Your task to perform on an android device: delete browsing data in the chrome app Image 0: 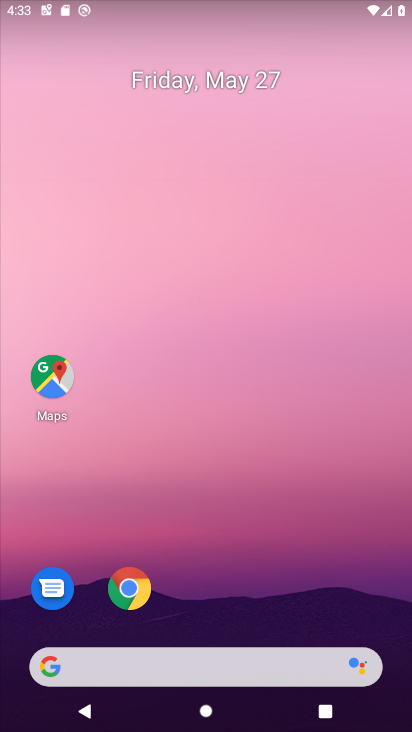
Step 0: click (121, 585)
Your task to perform on an android device: delete browsing data in the chrome app Image 1: 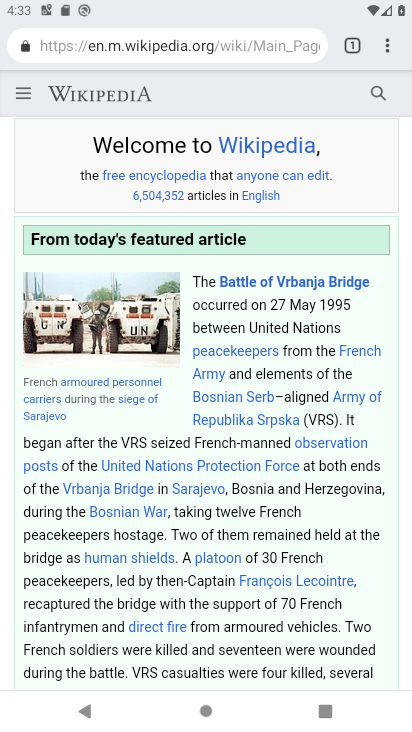
Step 1: click (385, 47)
Your task to perform on an android device: delete browsing data in the chrome app Image 2: 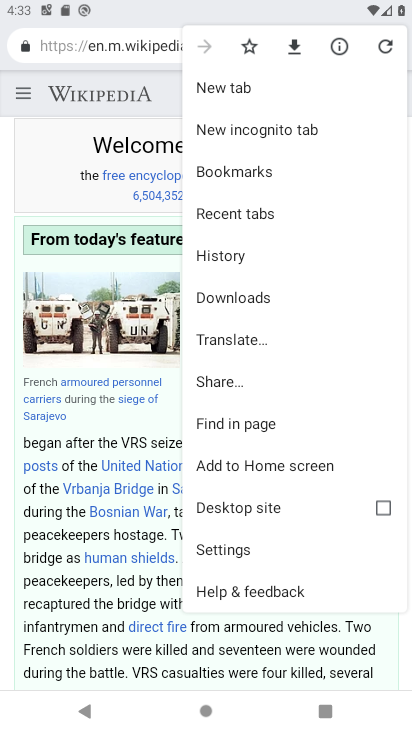
Step 2: click (242, 547)
Your task to perform on an android device: delete browsing data in the chrome app Image 3: 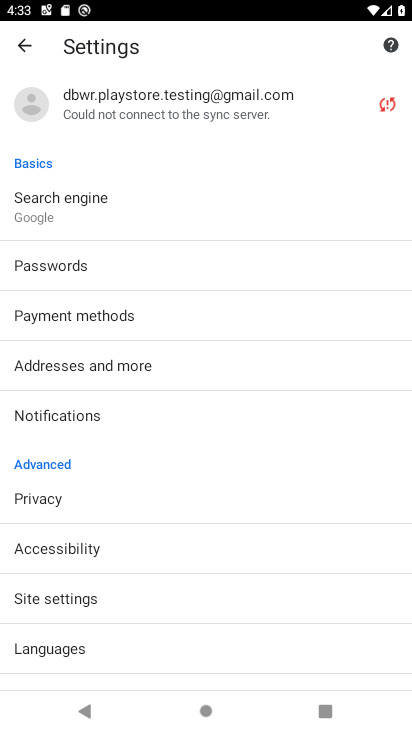
Step 3: click (61, 506)
Your task to perform on an android device: delete browsing data in the chrome app Image 4: 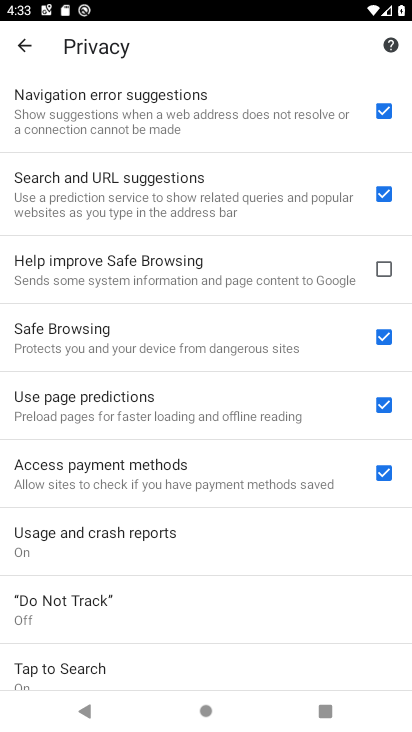
Step 4: drag from (195, 625) to (195, 164)
Your task to perform on an android device: delete browsing data in the chrome app Image 5: 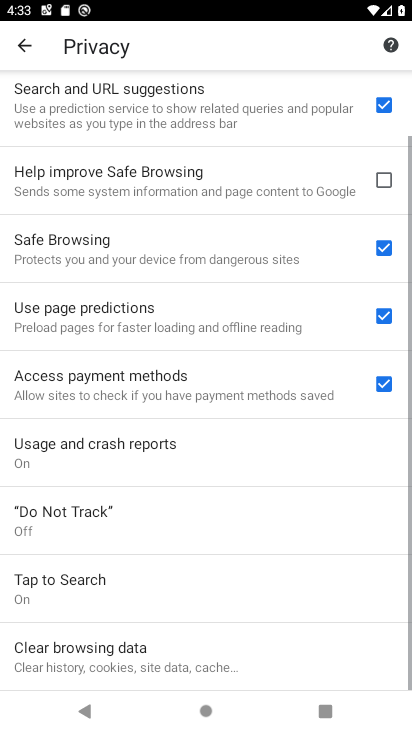
Step 5: click (119, 658)
Your task to perform on an android device: delete browsing data in the chrome app Image 6: 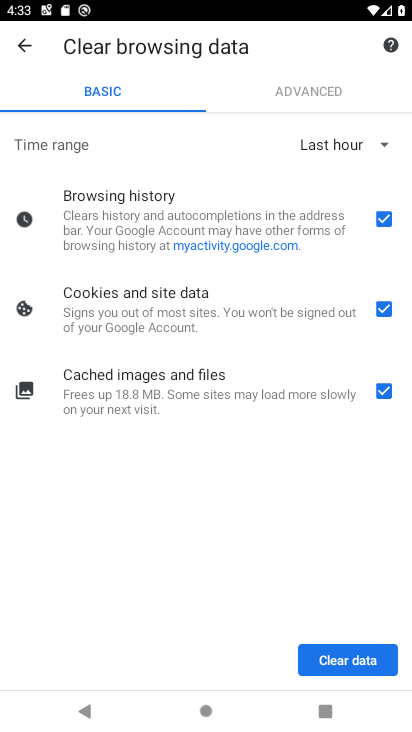
Step 6: click (388, 313)
Your task to perform on an android device: delete browsing data in the chrome app Image 7: 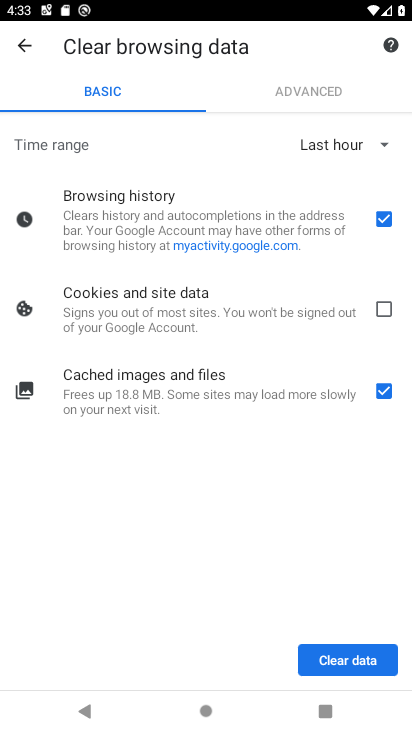
Step 7: click (384, 393)
Your task to perform on an android device: delete browsing data in the chrome app Image 8: 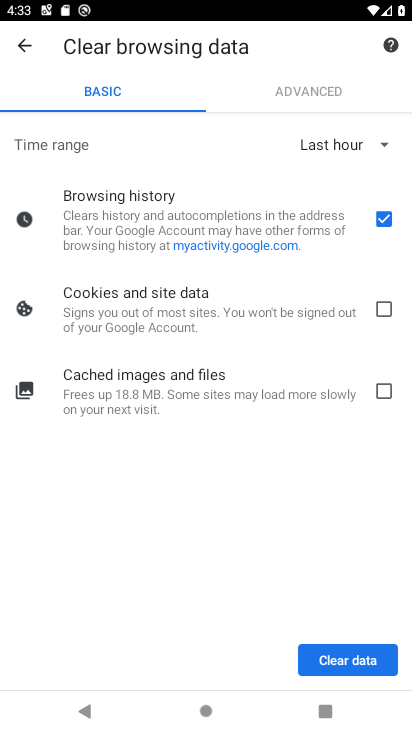
Step 8: click (356, 153)
Your task to perform on an android device: delete browsing data in the chrome app Image 9: 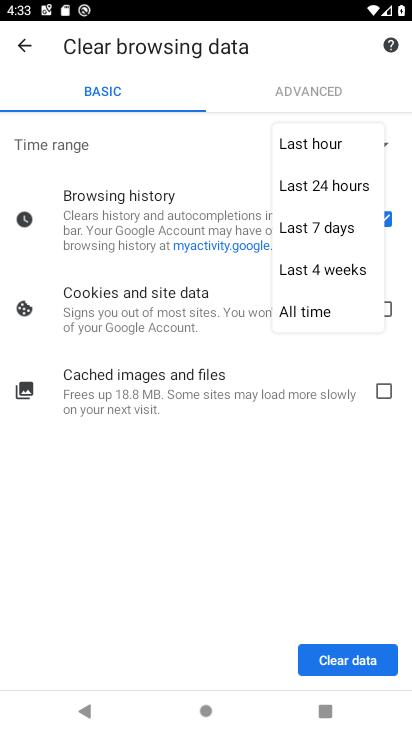
Step 9: click (303, 308)
Your task to perform on an android device: delete browsing data in the chrome app Image 10: 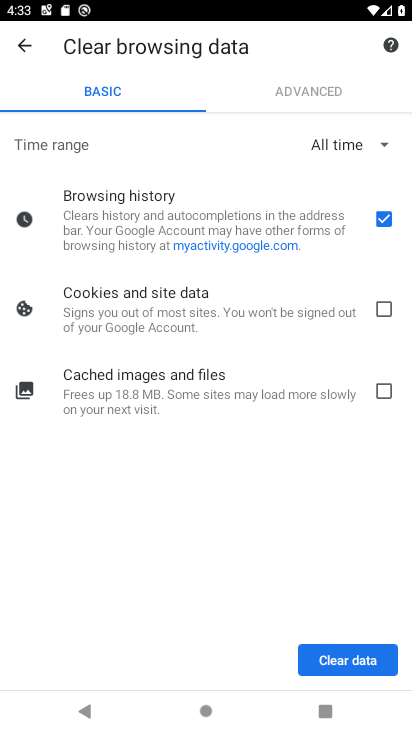
Step 10: click (364, 653)
Your task to perform on an android device: delete browsing data in the chrome app Image 11: 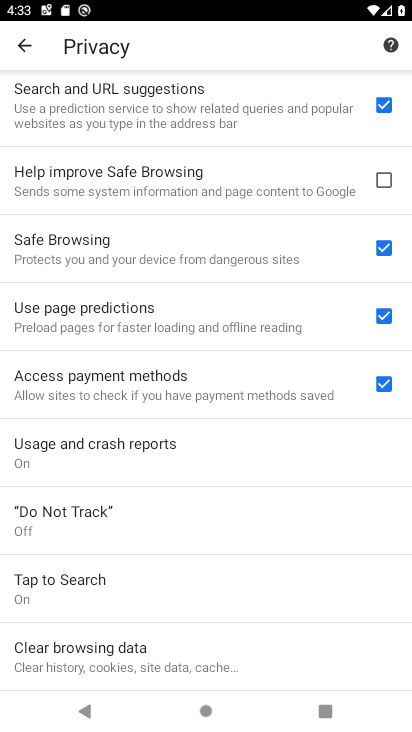
Step 11: task complete